Your task to perform on an android device: delete the emails in spam in the gmail app Image 0: 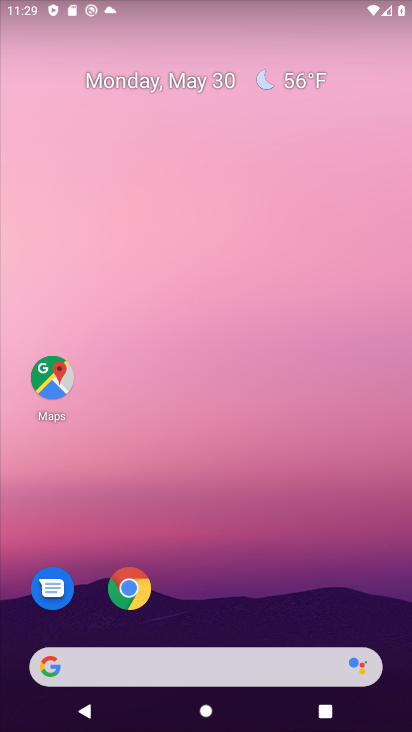
Step 0: drag from (224, 585) to (297, 59)
Your task to perform on an android device: delete the emails in spam in the gmail app Image 1: 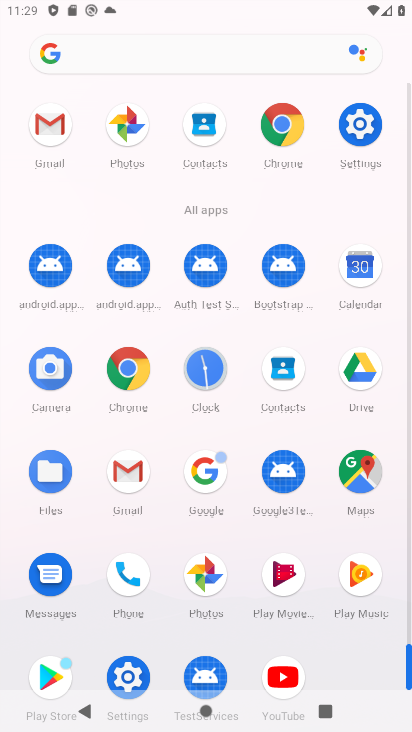
Step 1: click (125, 470)
Your task to perform on an android device: delete the emails in spam in the gmail app Image 2: 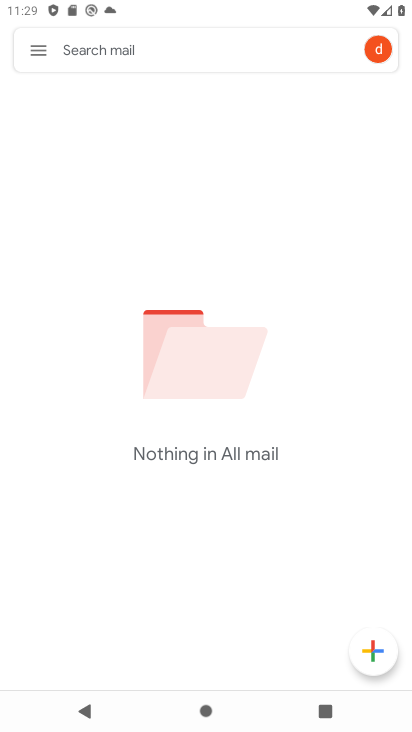
Step 2: click (44, 50)
Your task to perform on an android device: delete the emails in spam in the gmail app Image 3: 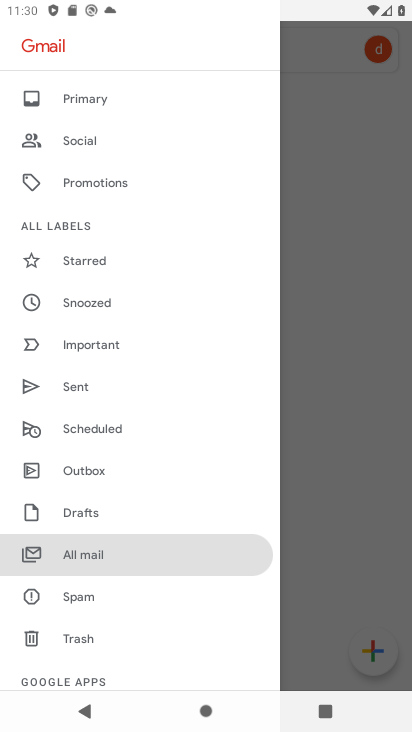
Step 3: click (73, 550)
Your task to perform on an android device: delete the emails in spam in the gmail app Image 4: 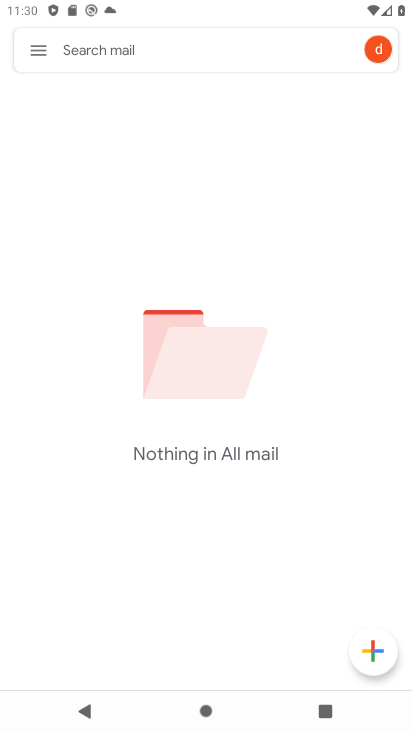
Step 4: task complete